Your task to perform on an android device: star an email in the gmail app Image 0: 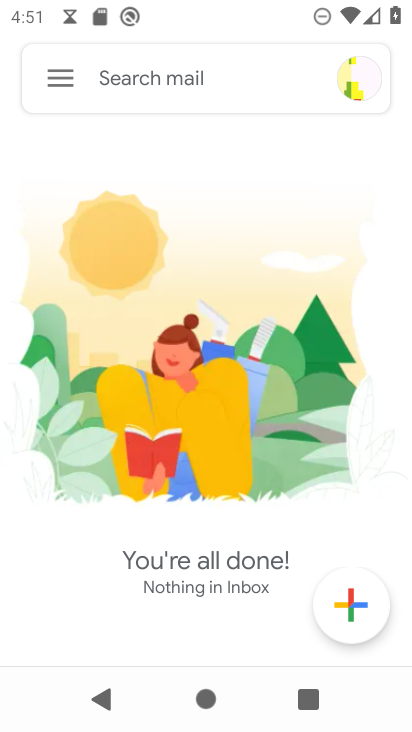
Step 0: press home button
Your task to perform on an android device: star an email in the gmail app Image 1: 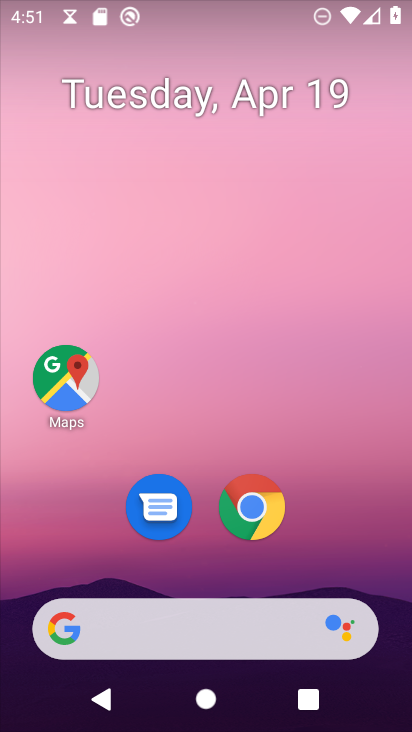
Step 1: drag from (320, 554) to (287, 170)
Your task to perform on an android device: star an email in the gmail app Image 2: 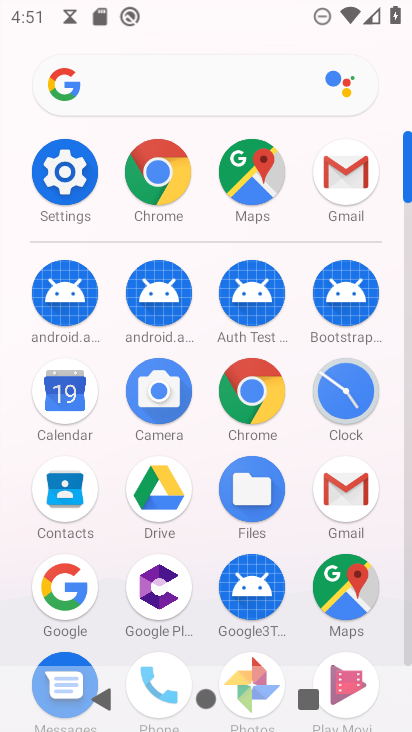
Step 2: click (339, 477)
Your task to perform on an android device: star an email in the gmail app Image 3: 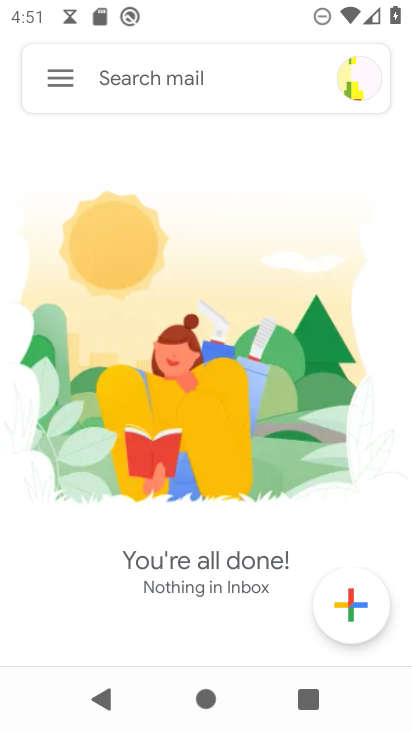
Step 3: task complete